Your task to perform on an android device: change the upload size in google photos Image 0: 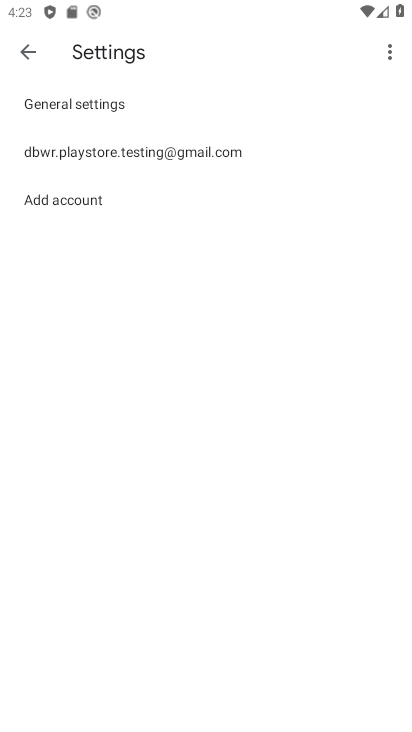
Step 0: press home button
Your task to perform on an android device: change the upload size in google photos Image 1: 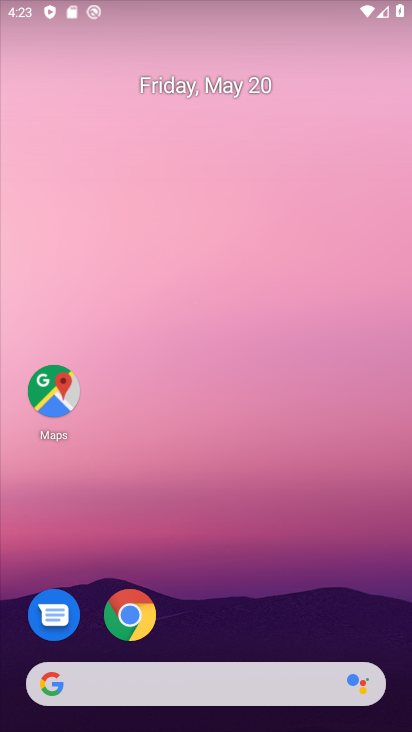
Step 1: drag from (202, 623) to (226, 320)
Your task to perform on an android device: change the upload size in google photos Image 2: 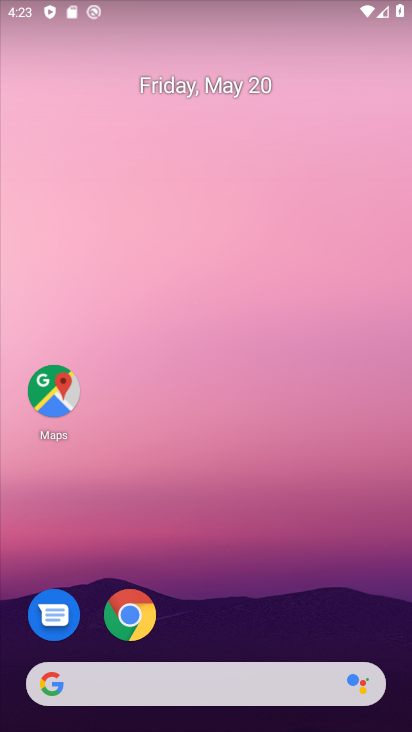
Step 2: drag from (224, 687) to (261, 247)
Your task to perform on an android device: change the upload size in google photos Image 3: 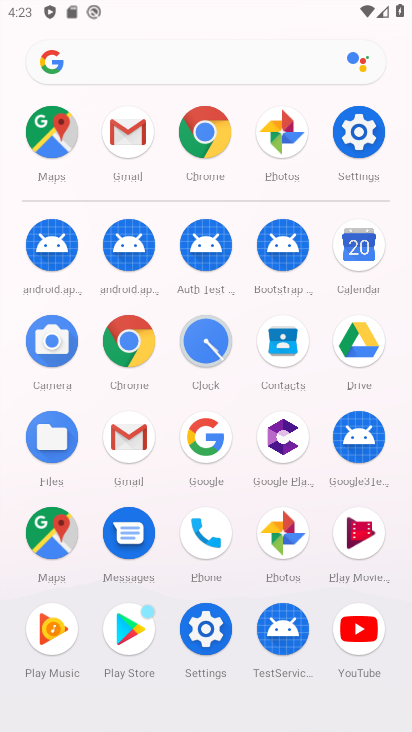
Step 3: click (290, 556)
Your task to perform on an android device: change the upload size in google photos Image 4: 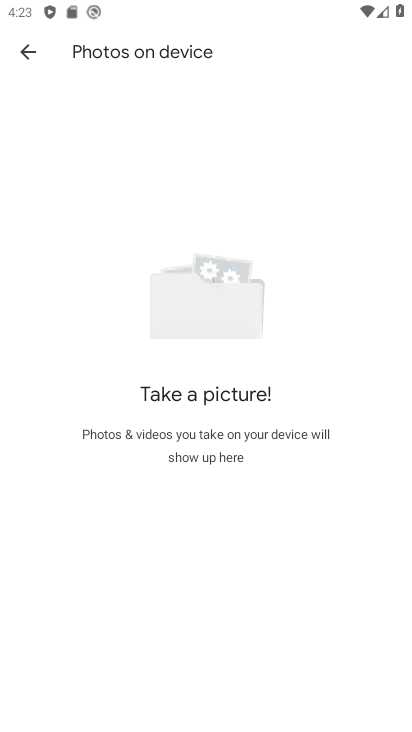
Step 4: click (30, 56)
Your task to perform on an android device: change the upload size in google photos Image 5: 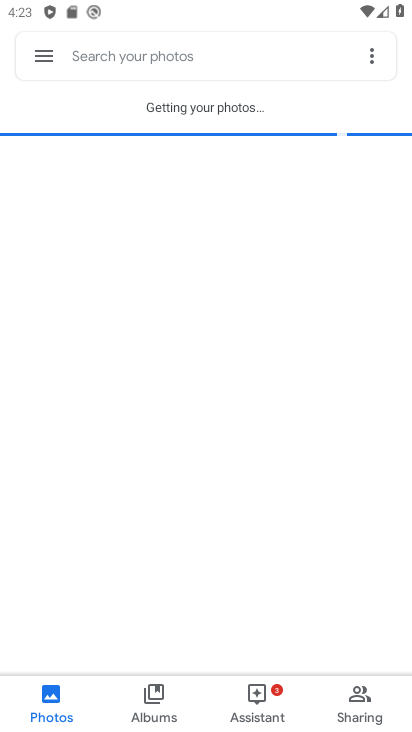
Step 5: click (47, 65)
Your task to perform on an android device: change the upload size in google photos Image 6: 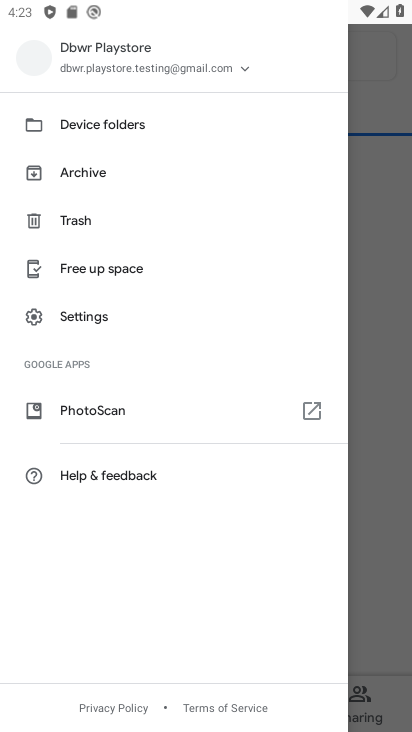
Step 6: click (102, 324)
Your task to perform on an android device: change the upload size in google photos Image 7: 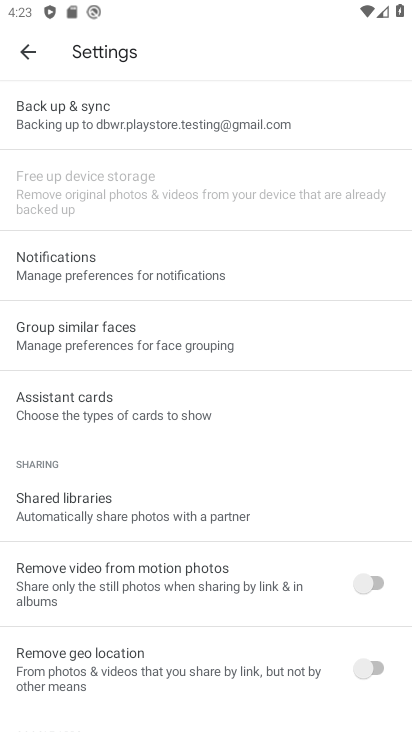
Step 7: click (117, 128)
Your task to perform on an android device: change the upload size in google photos Image 8: 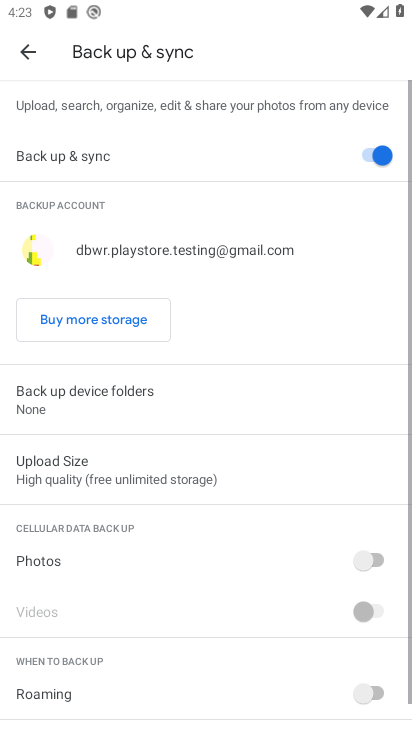
Step 8: click (120, 475)
Your task to perform on an android device: change the upload size in google photos Image 9: 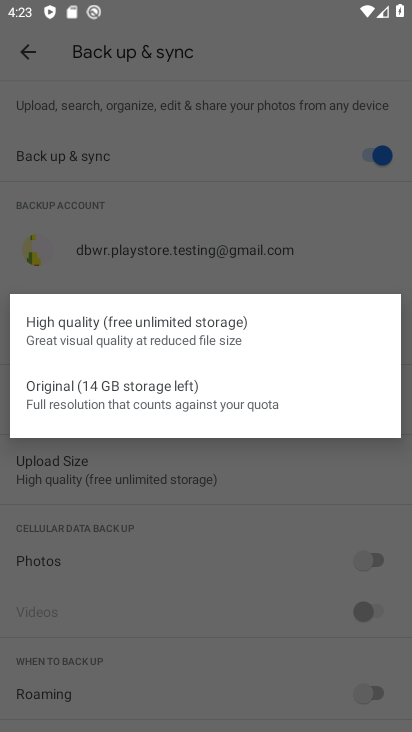
Step 9: click (135, 405)
Your task to perform on an android device: change the upload size in google photos Image 10: 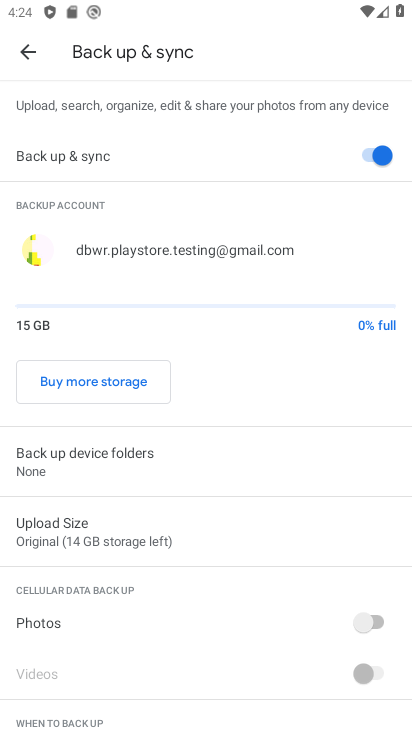
Step 10: task complete